Your task to perform on an android device: Show me some nice wallpapers for my computer Image 0: 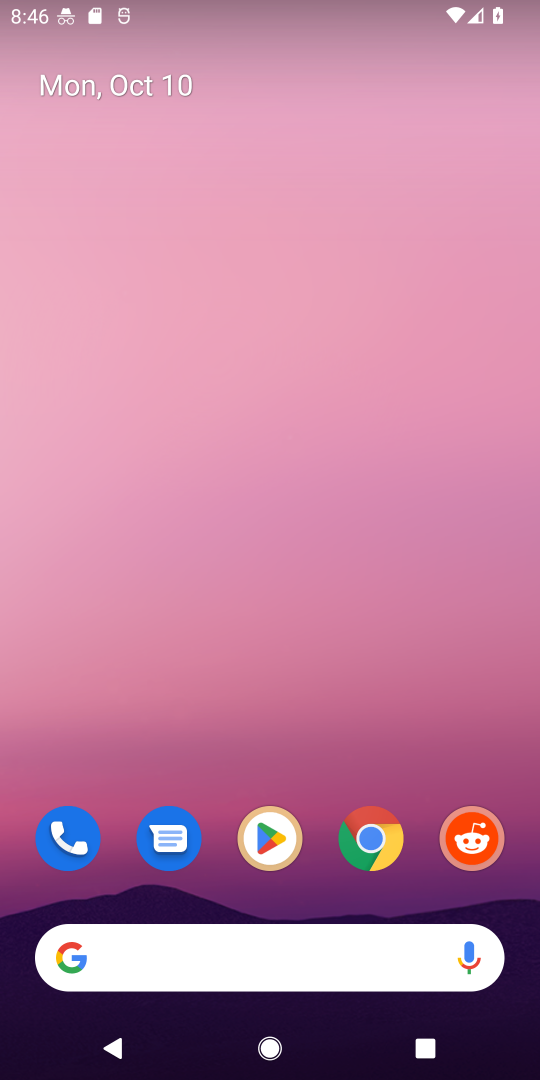
Step 0: click (367, 845)
Your task to perform on an android device: Show me some nice wallpapers for my computer Image 1: 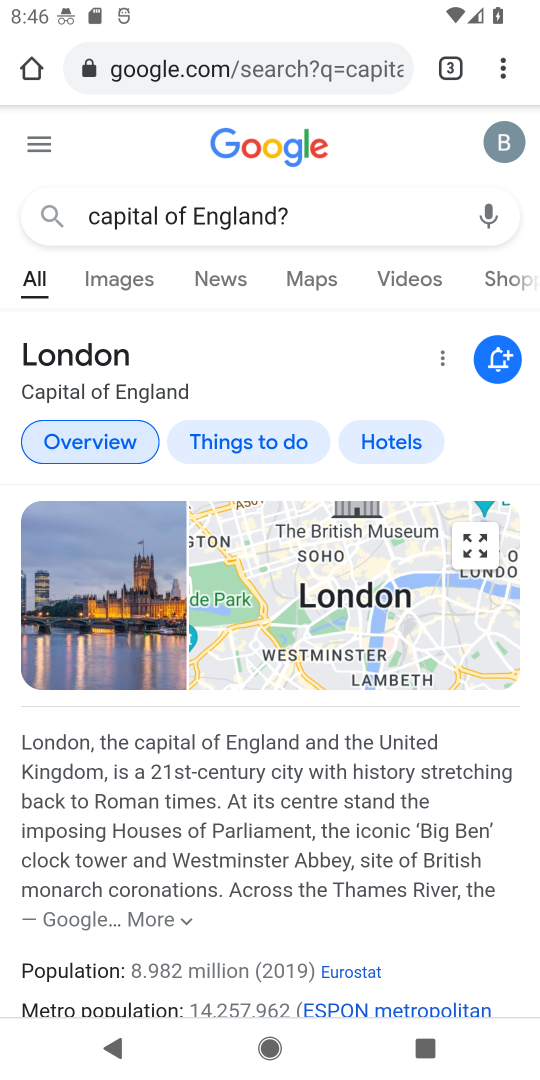
Step 1: click (226, 50)
Your task to perform on an android device: Show me some nice wallpapers for my computer Image 2: 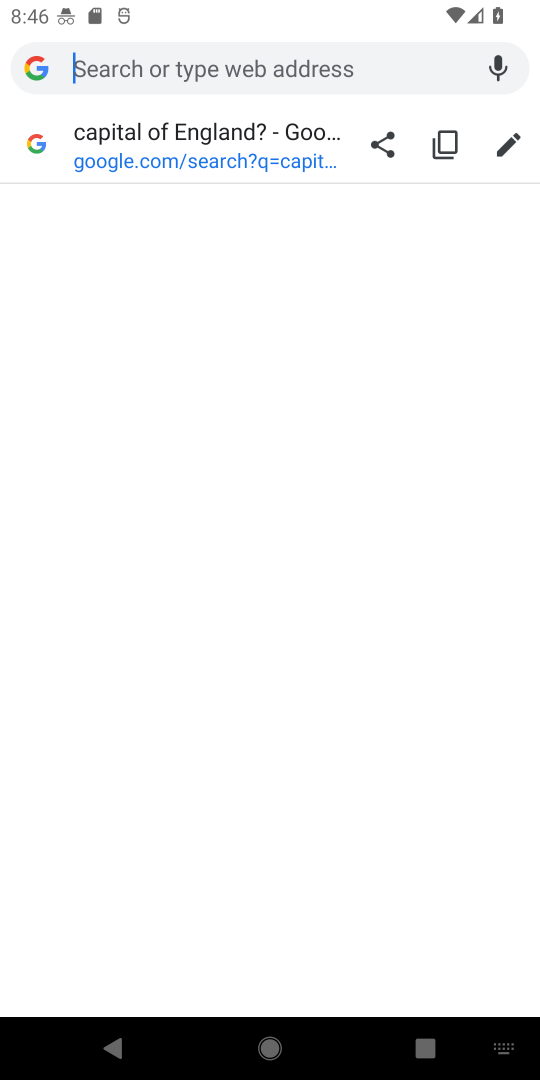
Step 2: type "nice wallpapers for my computer"
Your task to perform on an android device: Show me some nice wallpapers for my computer Image 3: 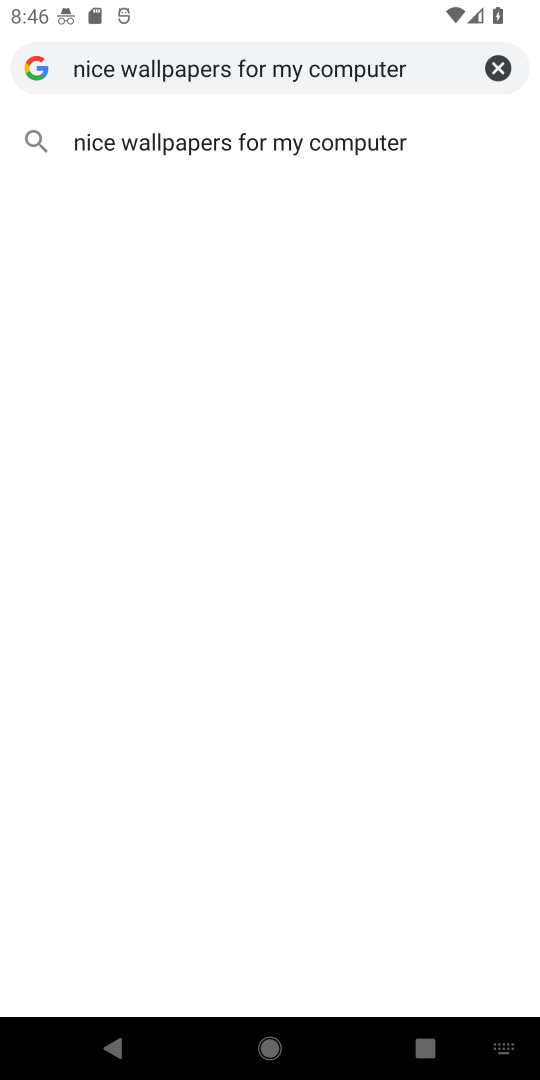
Step 3: click (198, 132)
Your task to perform on an android device: Show me some nice wallpapers for my computer Image 4: 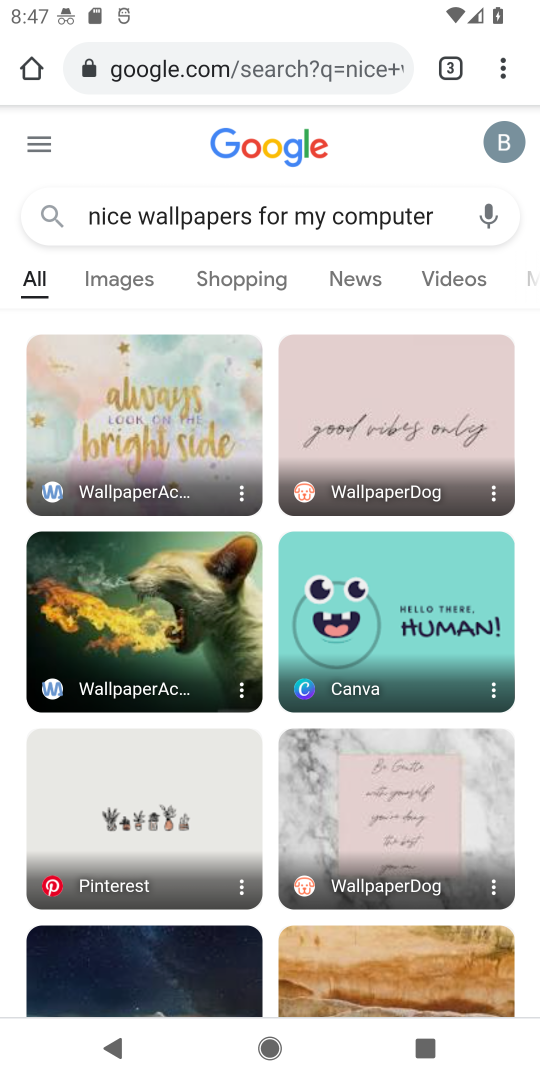
Step 4: task complete